Your task to perform on an android device: choose inbox layout in the gmail app Image 0: 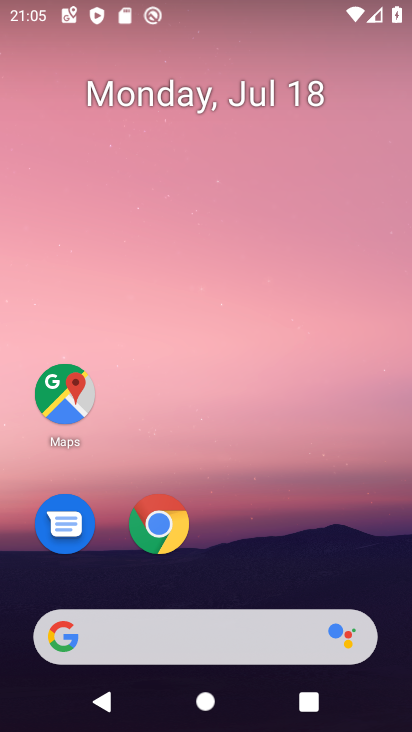
Step 0: drag from (246, 565) to (262, 100)
Your task to perform on an android device: choose inbox layout in the gmail app Image 1: 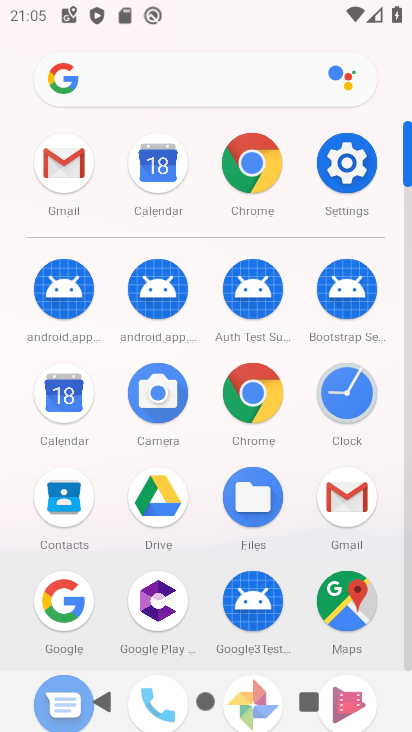
Step 1: click (80, 152)
Your task to perform on an android device: choose inbox layout in the gmail app Image 2: 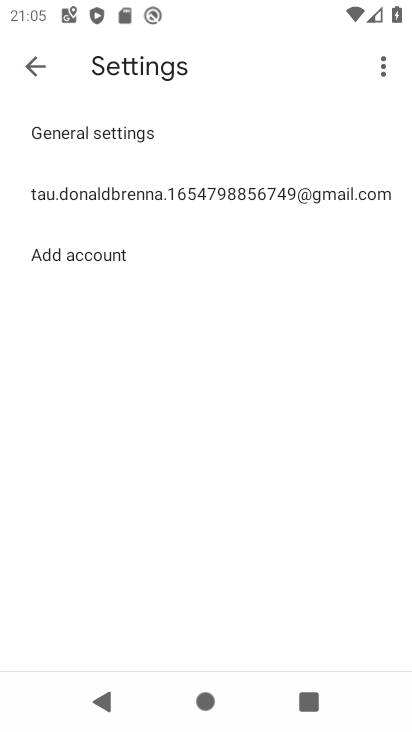
Step 2: click (39, 60)
Your task to perform on an android device: choose inbox layout in the gmail app Image 3: 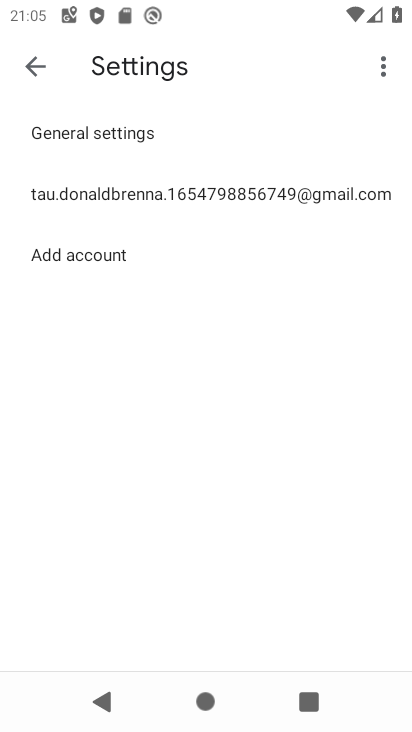
Step 3: click (121, 194)
Your task to perform on an android device: choose inbox layout in the gmail app Image 4: 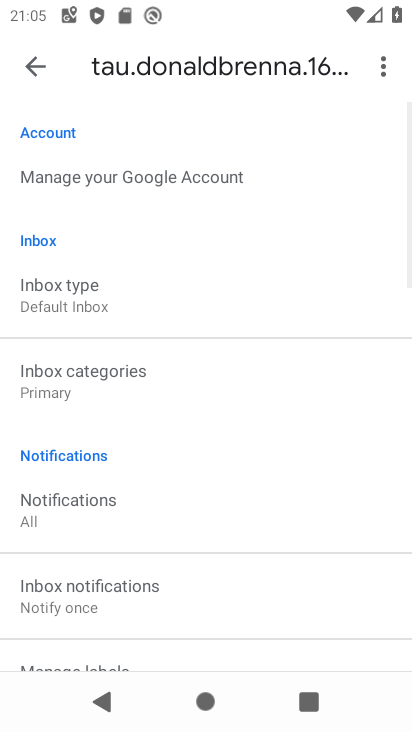
Step 4: click (83, 291)
Your task to perform on an android device: choose inbox layout in the gmail app Image 5: 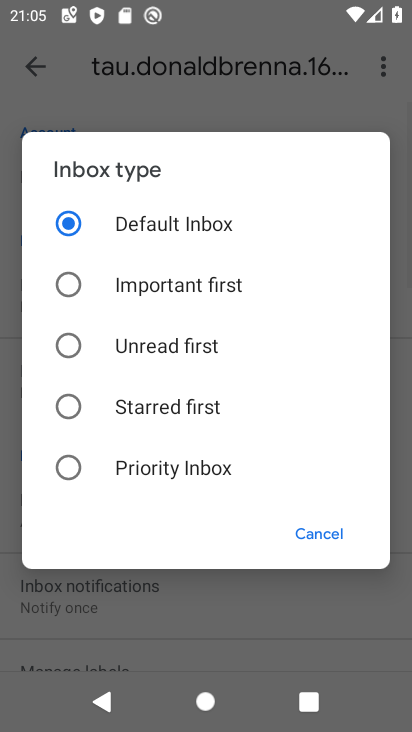
Step 5: click (83, 288)
Your task to perform on an android device: choose inbox layout in the gmail app Image 6: 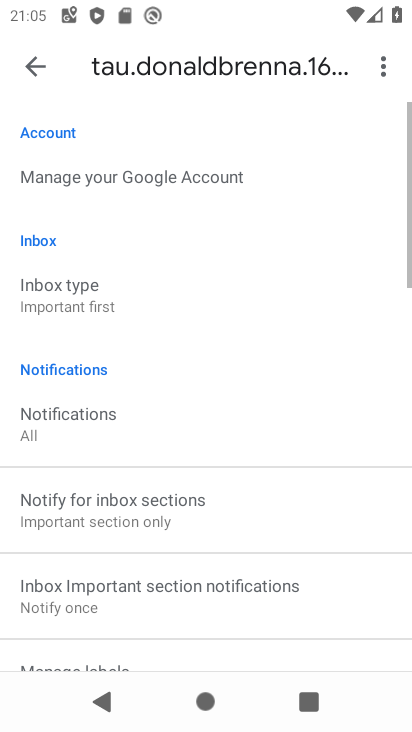
Step 6: task complete